Your task to perform on an android device: Open accessibility settings Image 0: 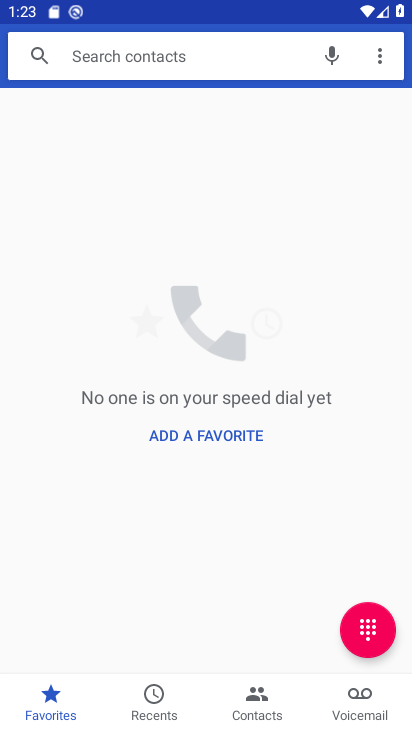
Step 0: press back button
Your task to perform on an android device: Open accessibility settings Image 1: 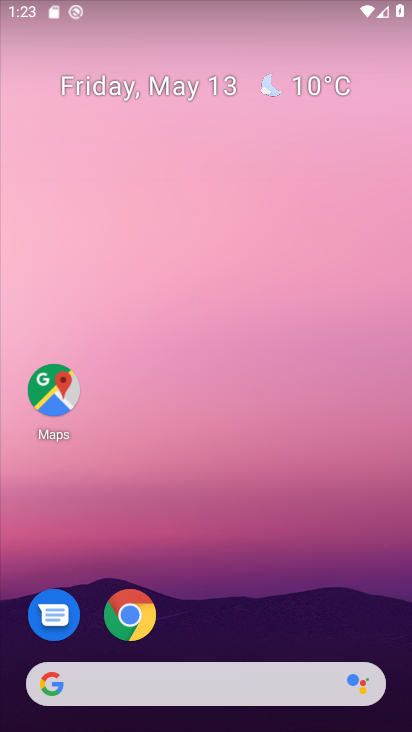
Step 1: drag from (194, 603) to (325, 143)
Your task to perform on an android device: Open accessibility settings Image 2: 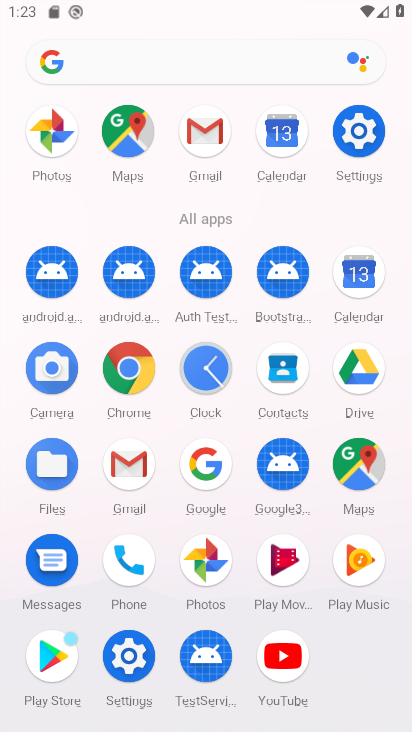
Step 2: drag from (180, 607) to (237, 375)
Your task to perform on an android device: Open accessibility settings Image 3: 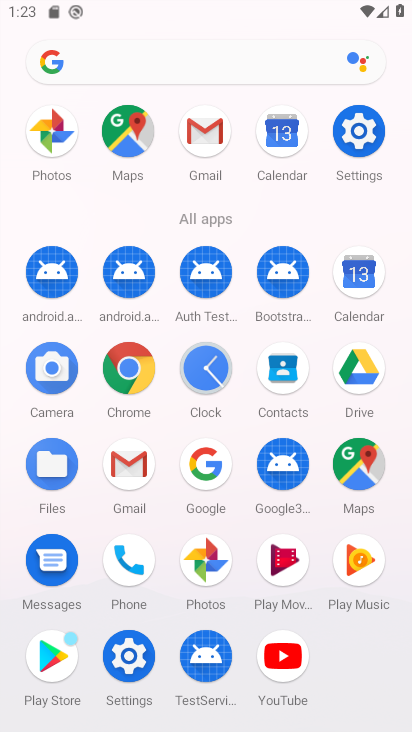
Step 3: click (118, 664)
Your task to perform on an android device: Open accessibility settings Image 4: 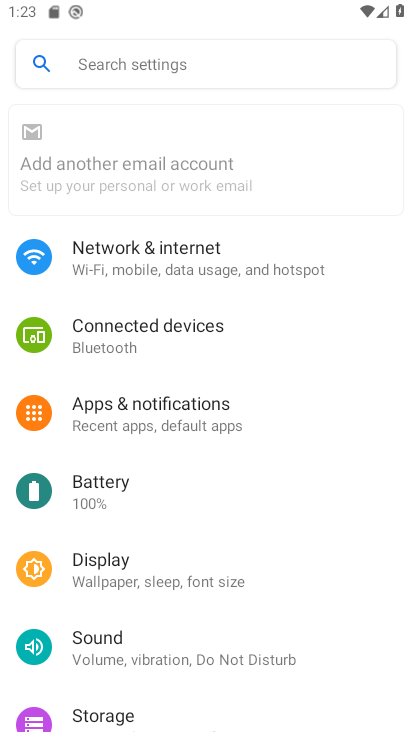
Step 4: drag from (176, 642) to (343, 197)
Your task to perform on an android device: Open accessibility settings Image 5: 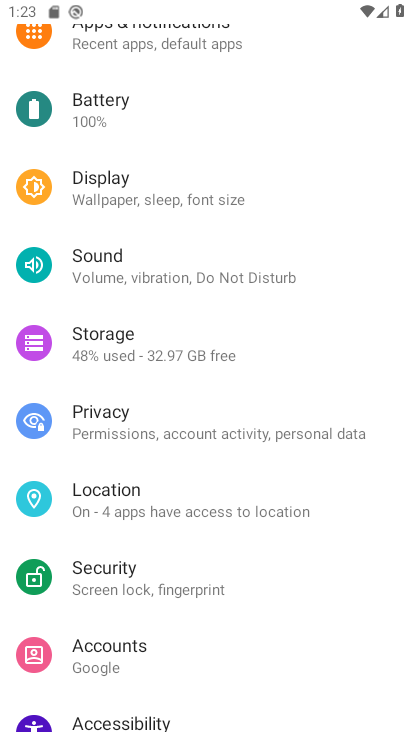
Step 5: drag from (193, 607) to (292, 212)
Your task to perform on an android device: Open accessibility settings Image 6: 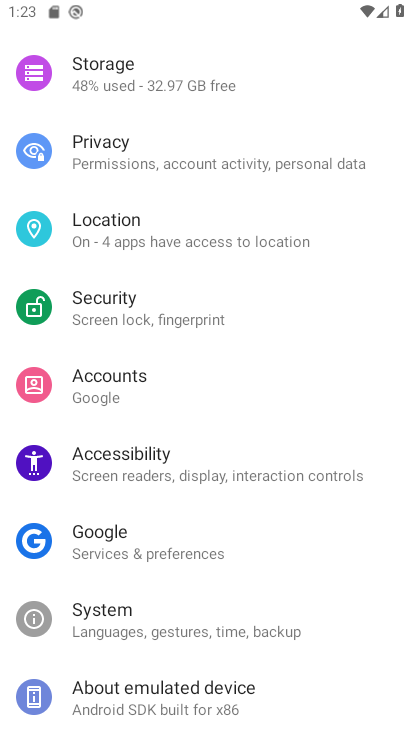
Step 6: click (168, 470)
Your task to perform on an android device: Open accessibility settings Image 7: 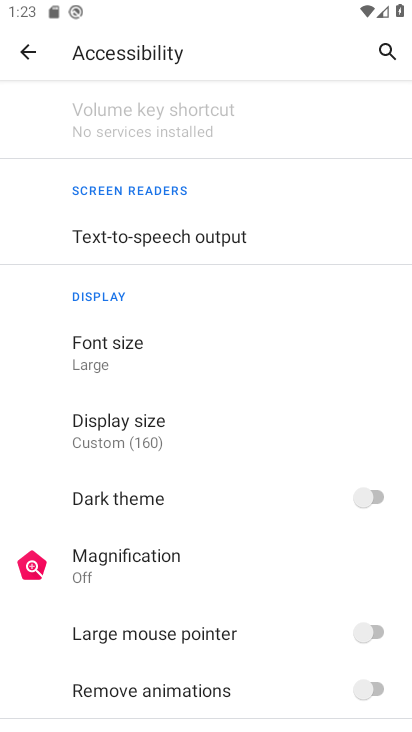
Step 7: task complete